Your task to perform on an android device: uninstall "Grab" Image 0: 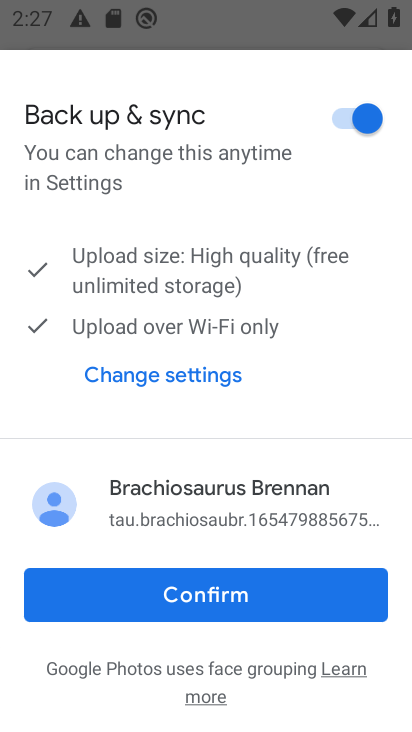
Step 0: press home button
Your task to perform on an android device: uninstall "Grab" Image 1: 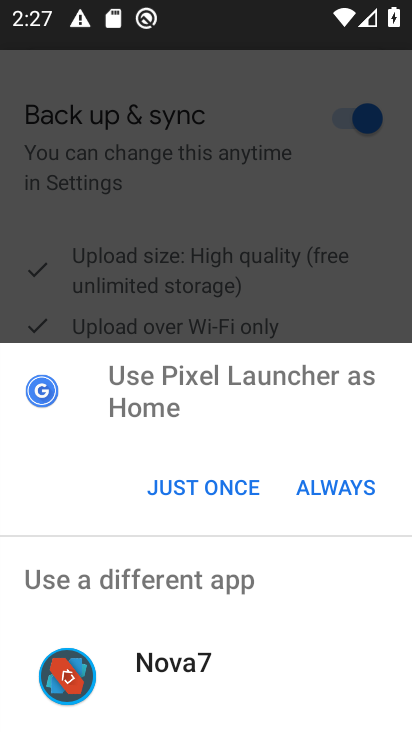
Step 1: click (206, 485)
Your task to perform on an android device: uninstall "Grab" Image 2: 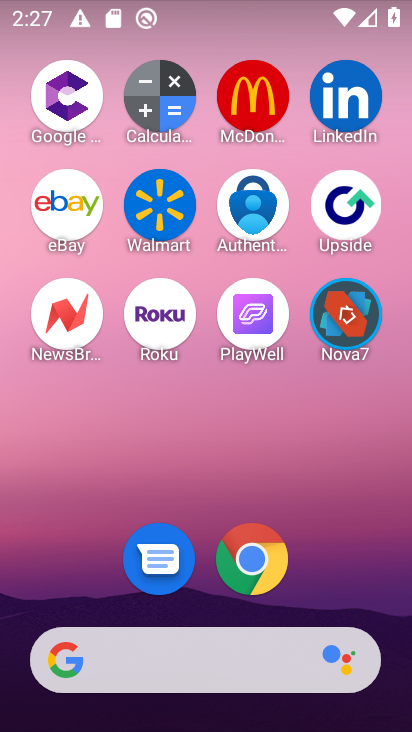
Step 2: click (179, 128)
Your task to perform on an android device: uninstall "Grab" Image 3: 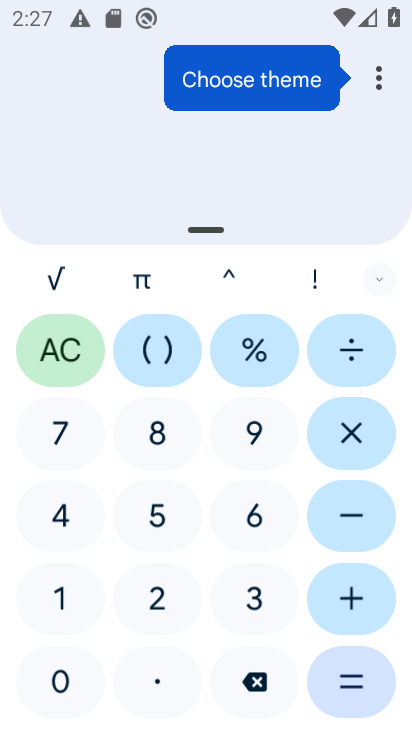
Step 3: press home button
Your task to perform on an android device: uninstall "Grab" Image 4: 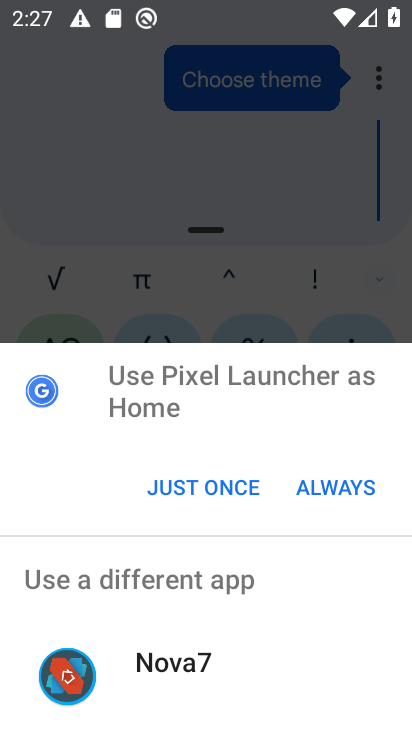
Step 4: click (210, 484)
Your task to perform on an android device: uninstall "Grab" Image 5: 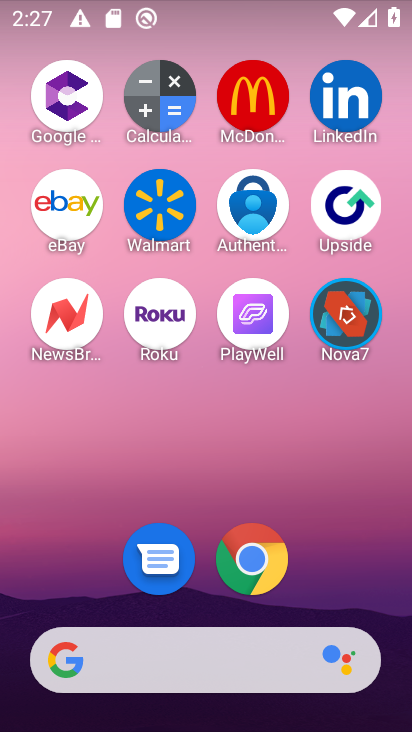
Step 5: drag from (188, 490) to (182, 134)
Your task to perform on an android device: uninstall "Grab" Image 6: 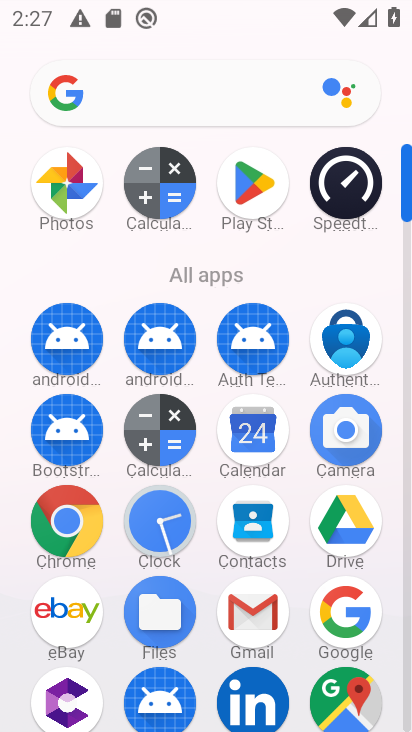
Step 6: click (233, 199)
Your task to perform on an android device: uninstall "Grab" Image 7: 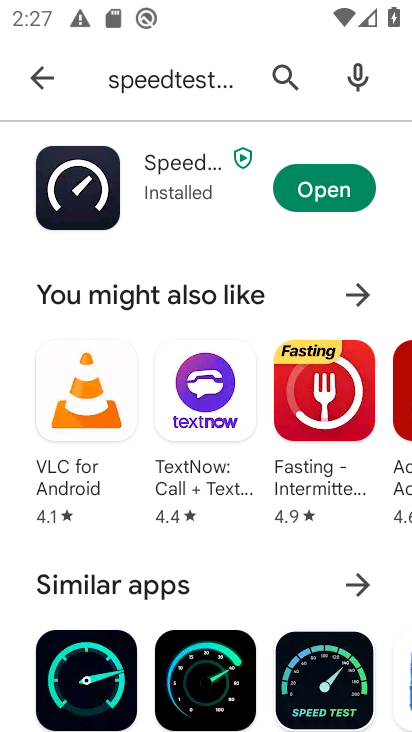
Step 7: click (281, 72)
Your task to perform on an android device: uninstall "Grab" Image 8: 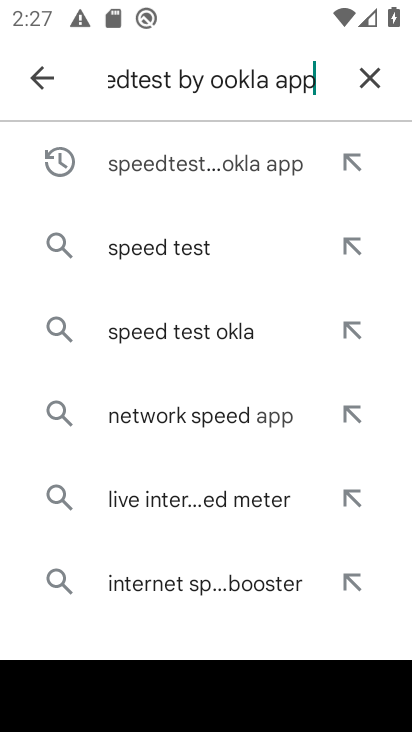
Step 8: click (364, 77)
Your task to perform on an android device: uninstall "Grab" Image 9: 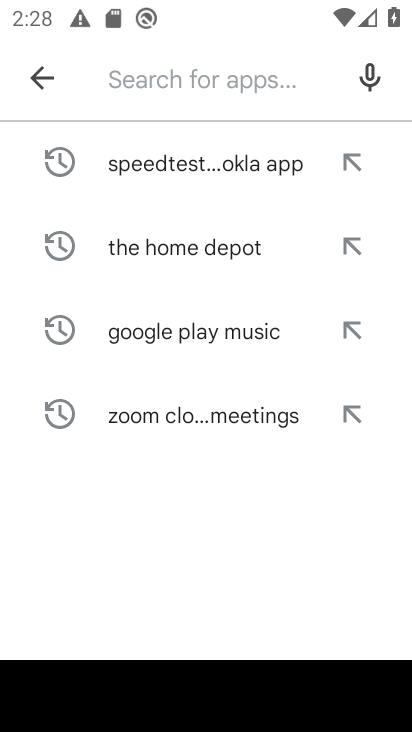
Step 9: type "Grab"
Your task to perform on an android device: uninstall "Grab" Image 10: 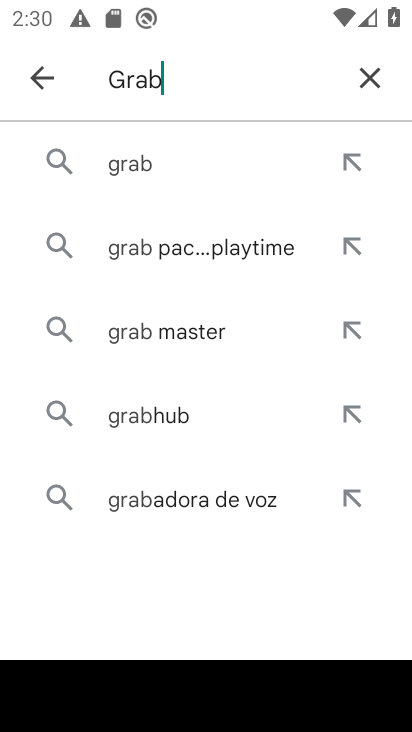
Step 10: click (122, 164)
Your task to perform on an android device: uninstall "Grab" Image 11: 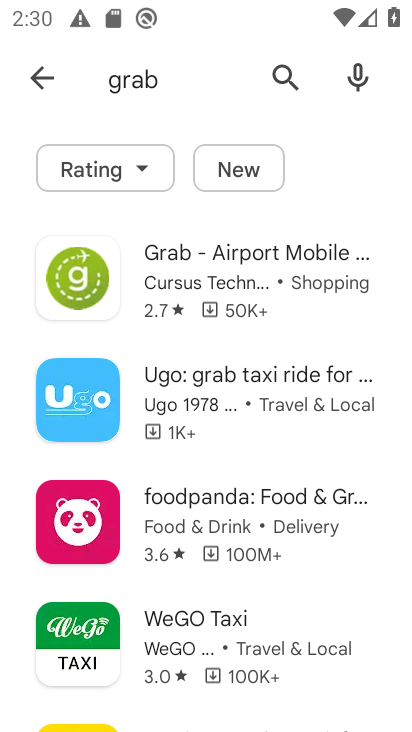
Step 11: task complete